Your task to perform on an android device: Open Google Chrome Image 0: 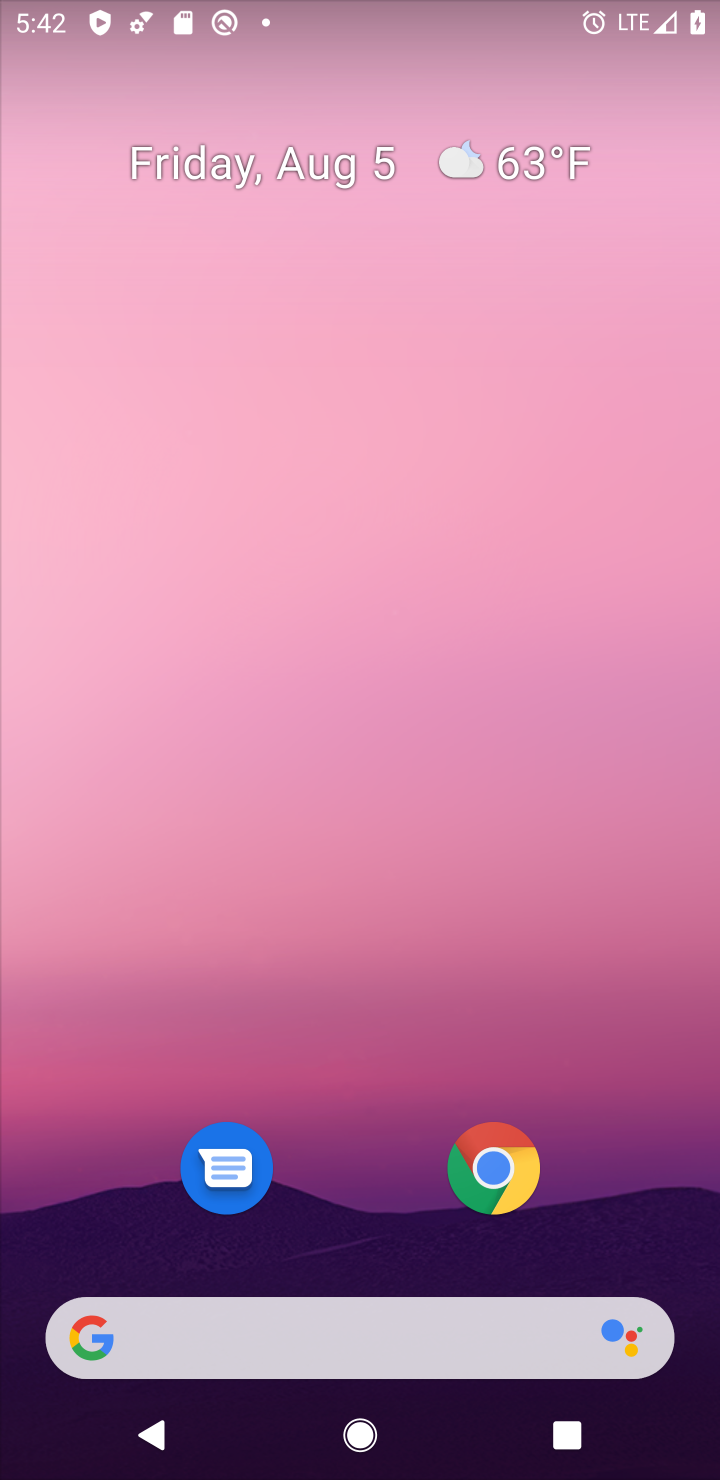
Step 0: press home button
Your task to perform on an android device: Open Google Chrome Image 1: 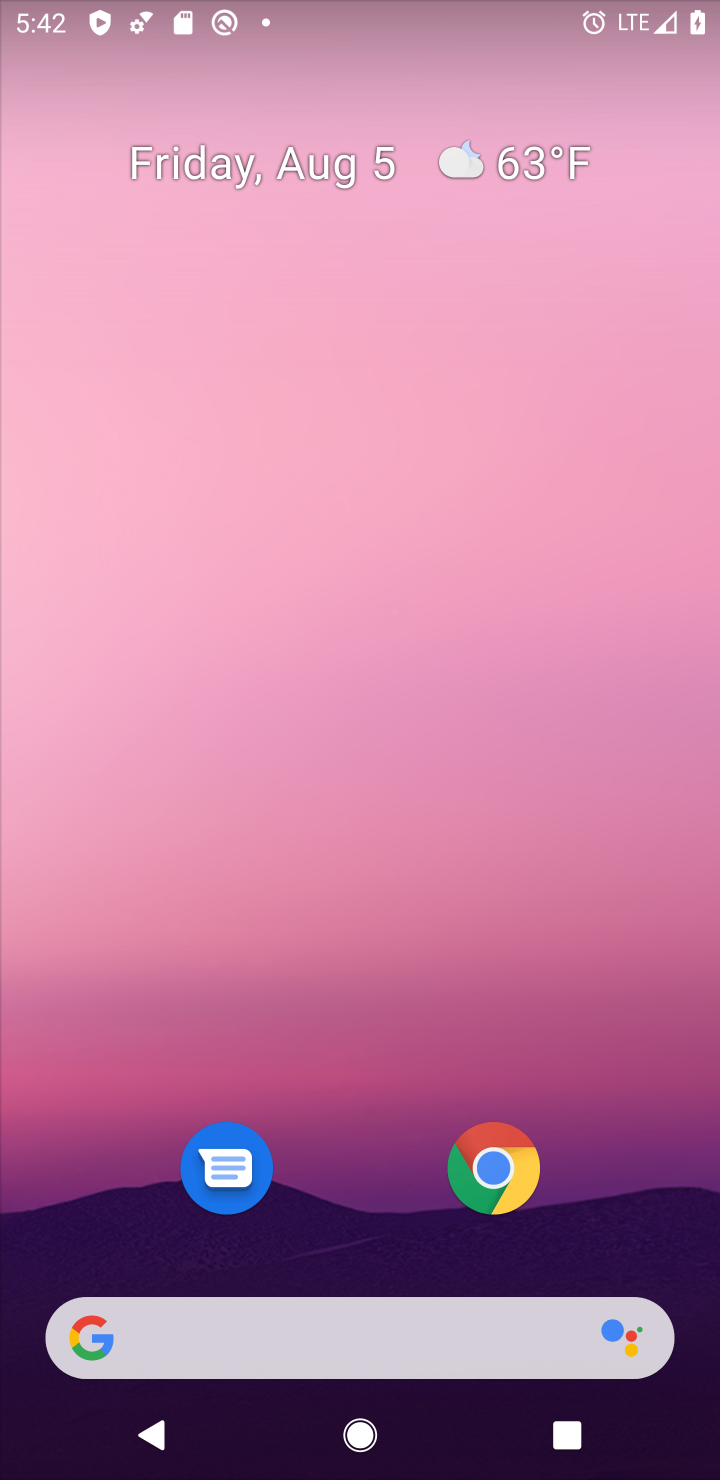
Step 1: click (485, 1174)
Your task to perform on an android device: Open Google Chrome Image 2: 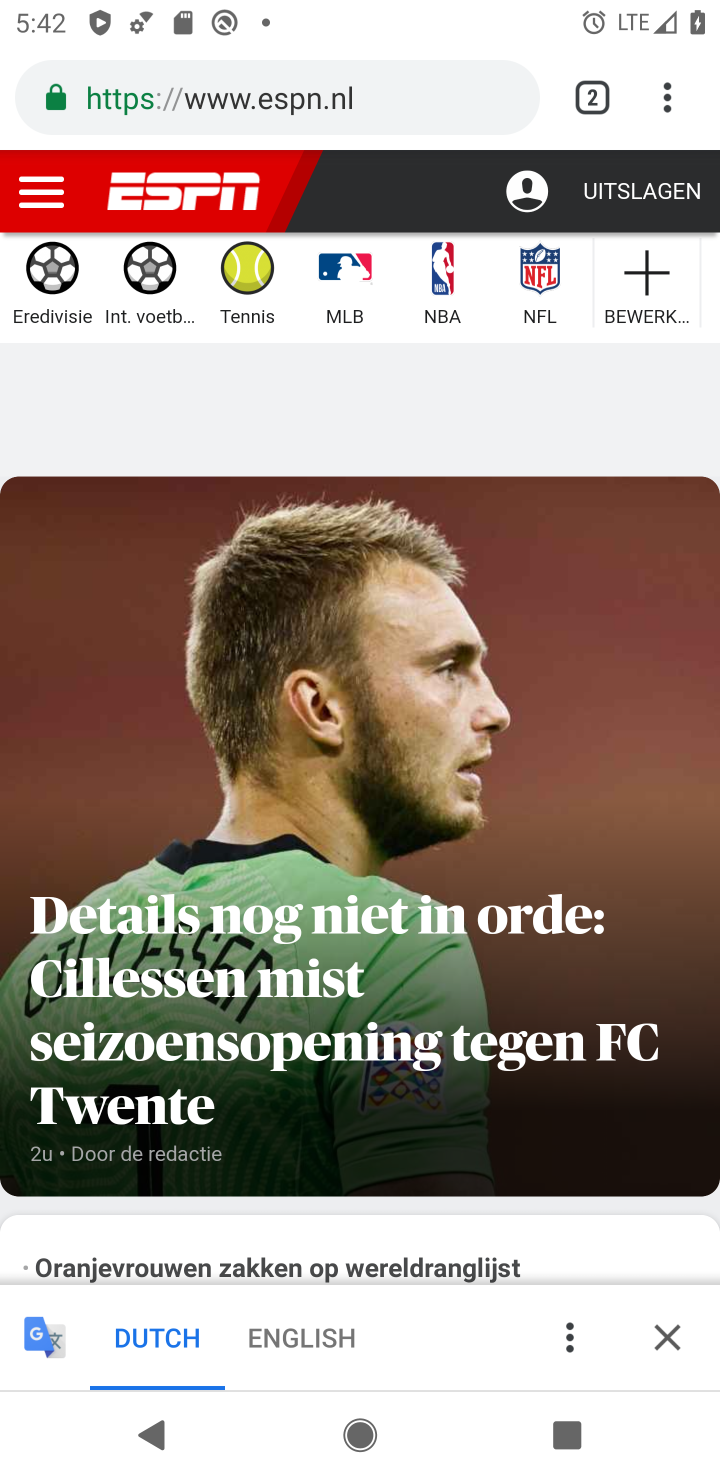
Step 2: click (582, 95)
Your task to perform on an android device: Open Google Chrome Image 3: 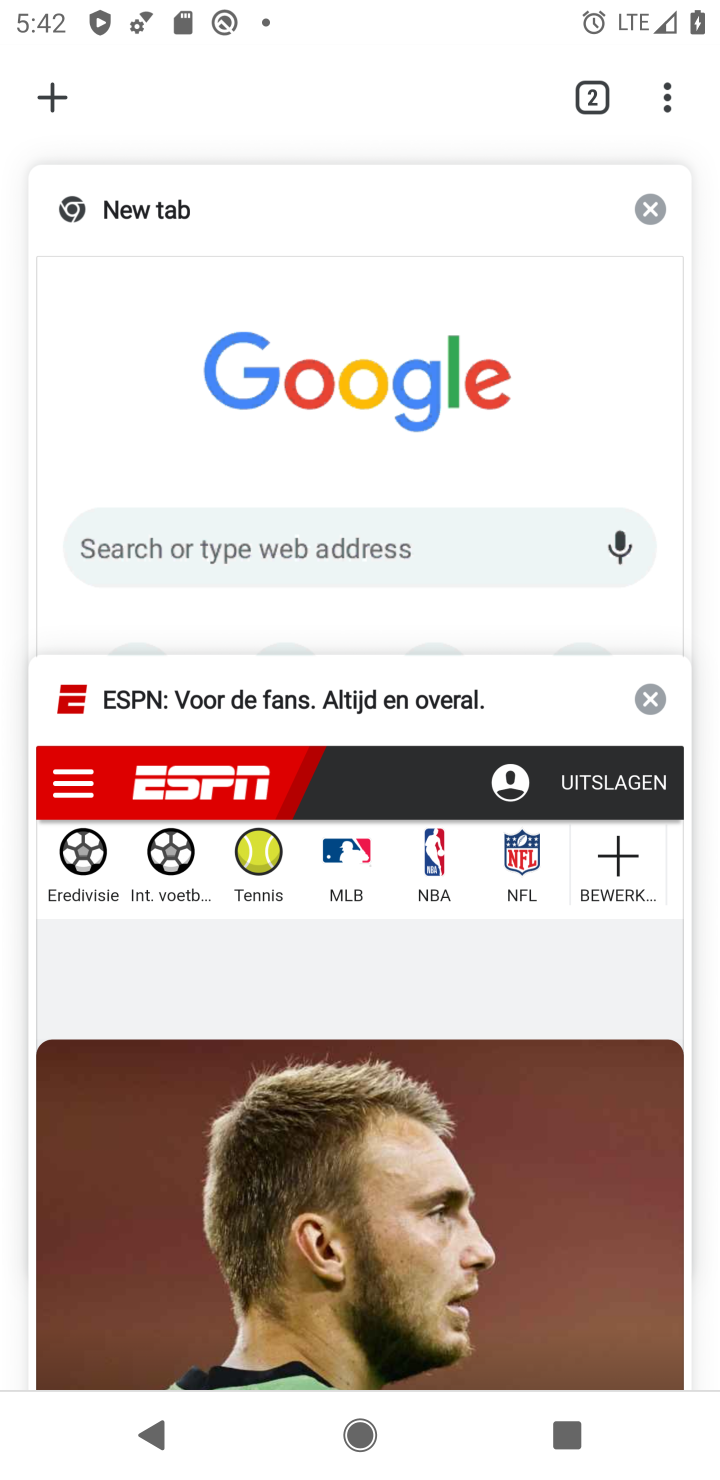
Step 3: click (52, 96)
Your task to perform on an android device: Open Google Chrome Image 4: 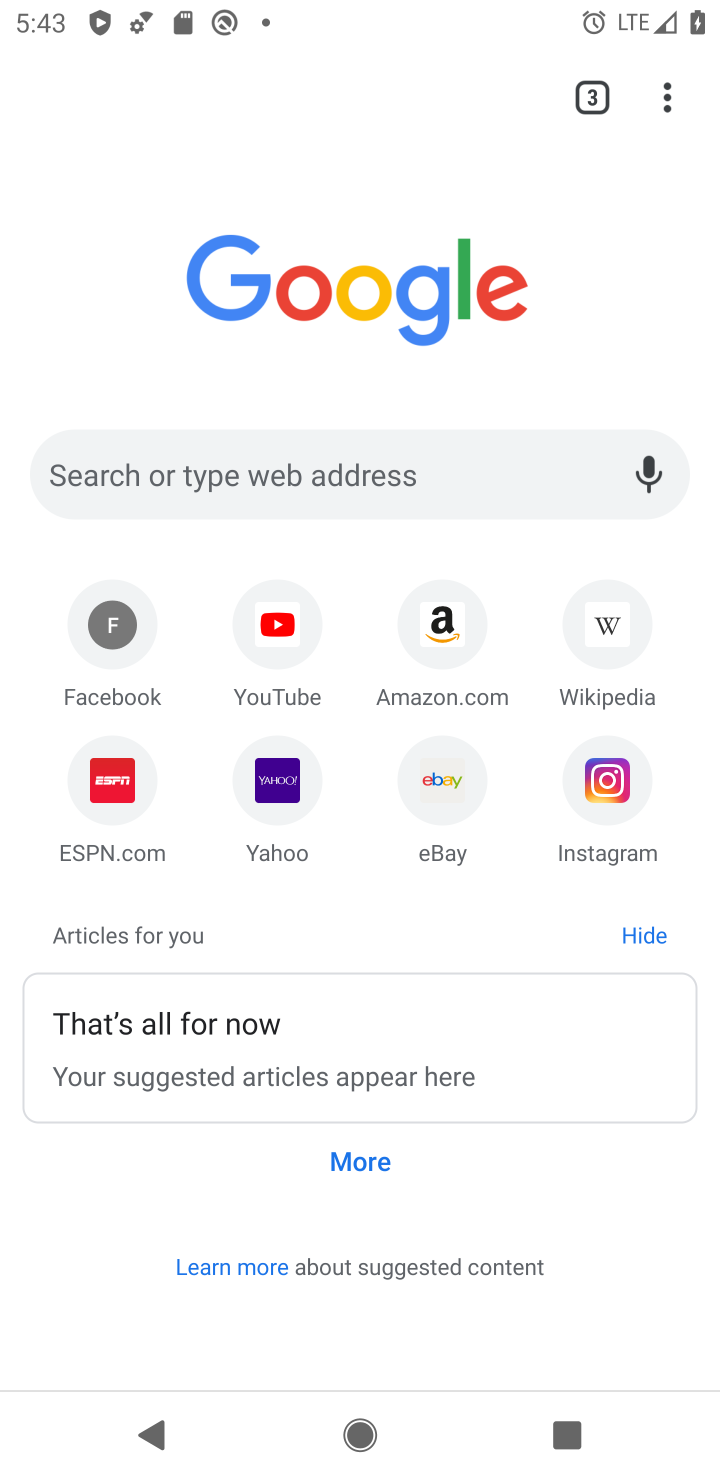
Step 4: task complete